Your task to perform on an android device: open a bookmark in the chrome app Image 0: 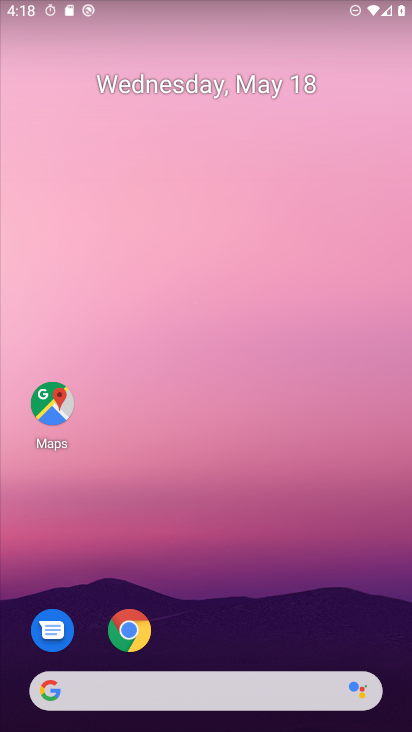
Step 0: press home button
Your task to perform on an android device: open a bookmark in the chrome app Image 1: 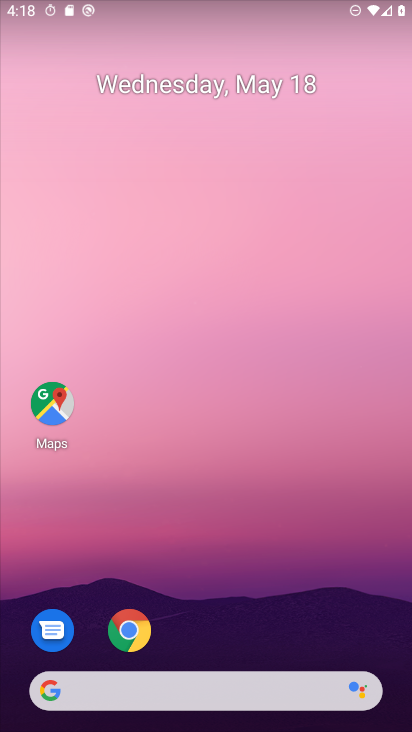
Step 1: click (125, 622)
Your task to perform on an android device: open a bookmark in the chrome app Image 2: 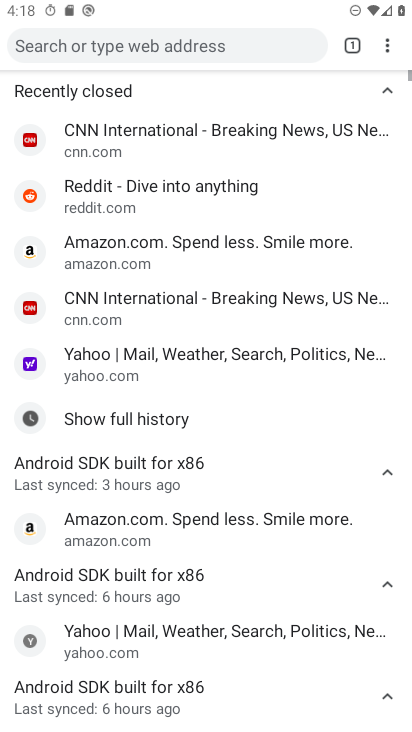
Step 2: click (387, 36)
Your task to perform on an android device: open a bookmark in the chrome app Image 3: 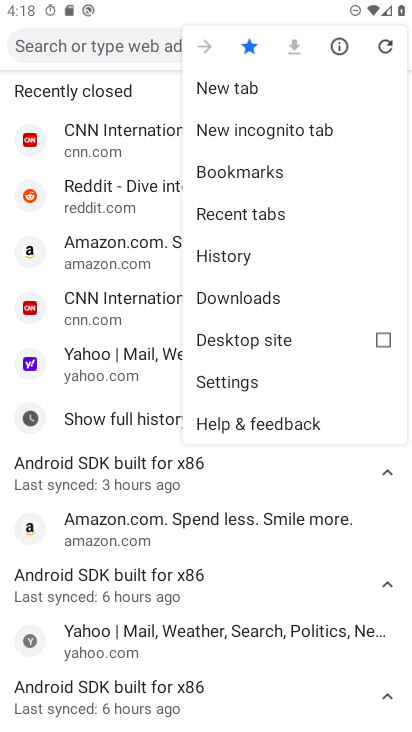
Step 3: click (294, 163)
Your task to perform on an android device: open a bookmark in the chrome app Image 4: 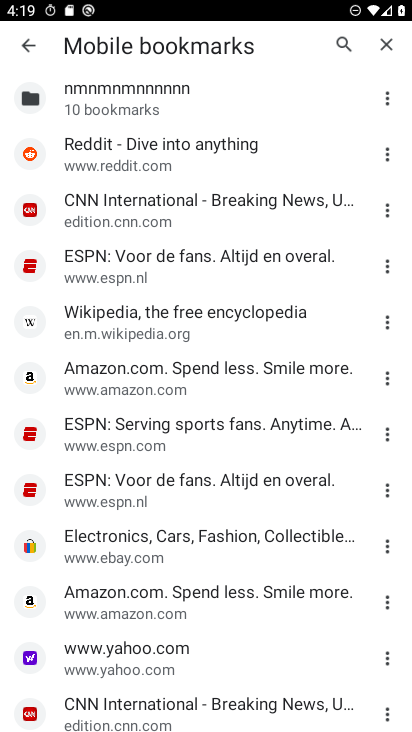
Step 4: task complete